Your task to perform on an android device: change the clock display to analog Image 0: 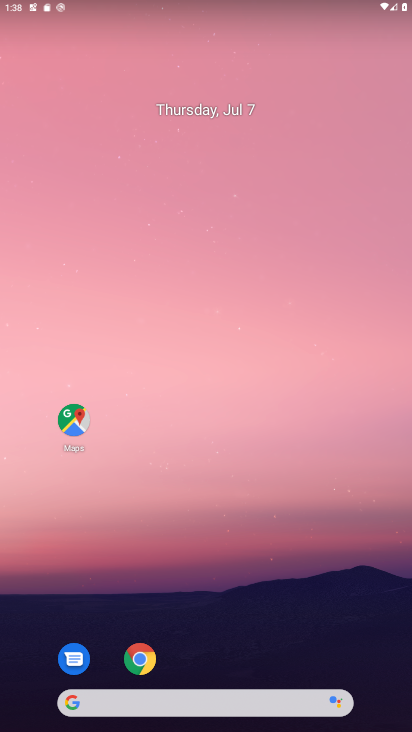
Step 0: click (198, 590)
Your task to perform on an android device: change the clock display to analog Image 1: 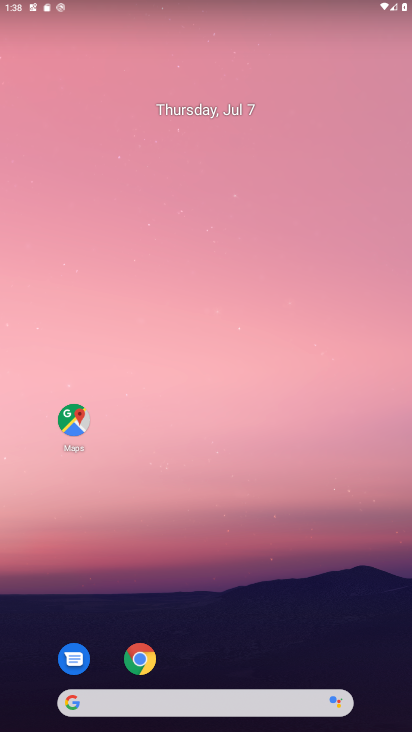
Step 1: drag from (199, 660) to (289, 63)
Your task to perform on an android device: change the clock display to analog Image 2: 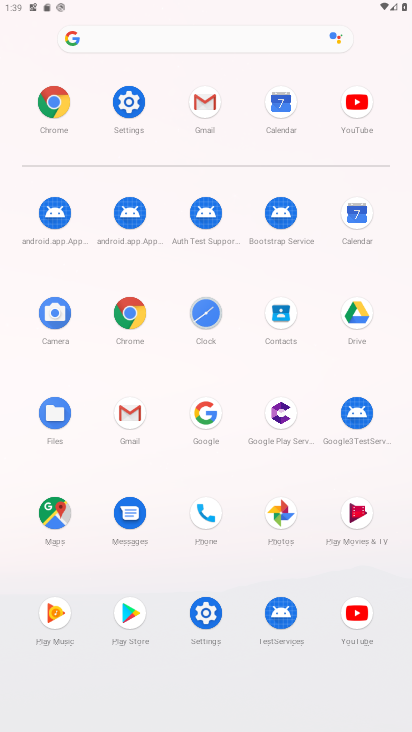
Step 2: click (213, 302)
Your task to perform on an android device: change the clock display to analog Image 3: 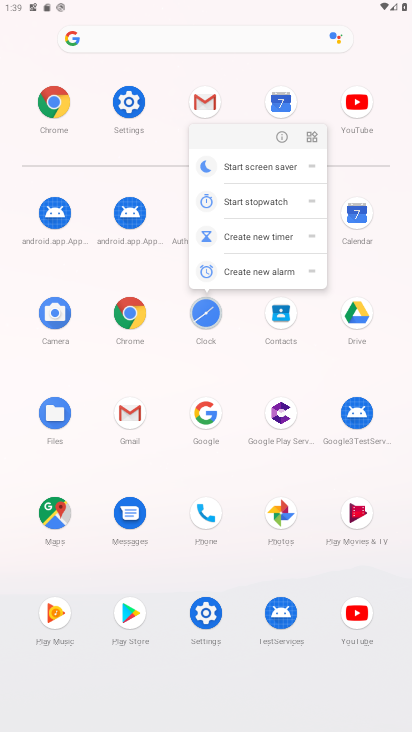
Step 3: click (278, 138)
Your task to perform on an android device: change the clock display to analog Image 4: 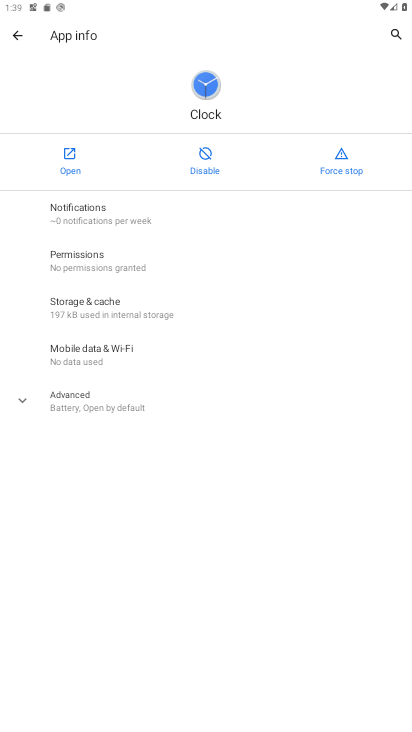
Step 4: click (66, 165)
Your task to perform on an android device: change the clock display to analog Image 5: 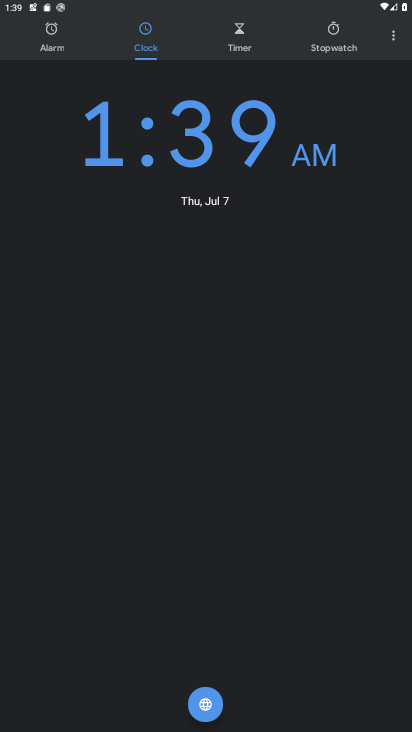
Step 5: click (395, 35)
Your task to perform on an android device: change the clock display to analog Image 6: 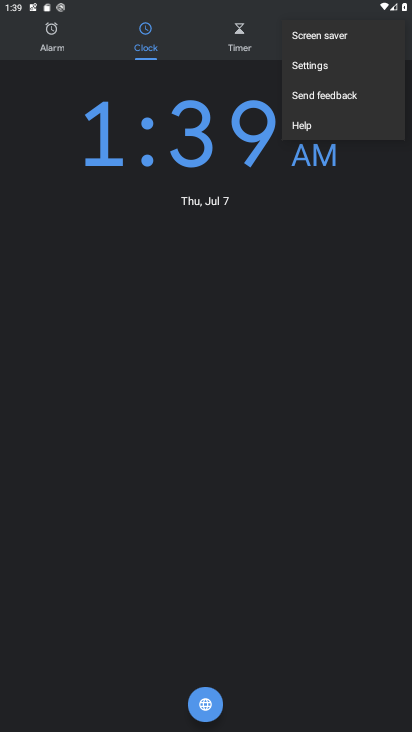
Step 6: click (313, 67)
Your task to perform on an android device: change the clock display to analog Image 7: 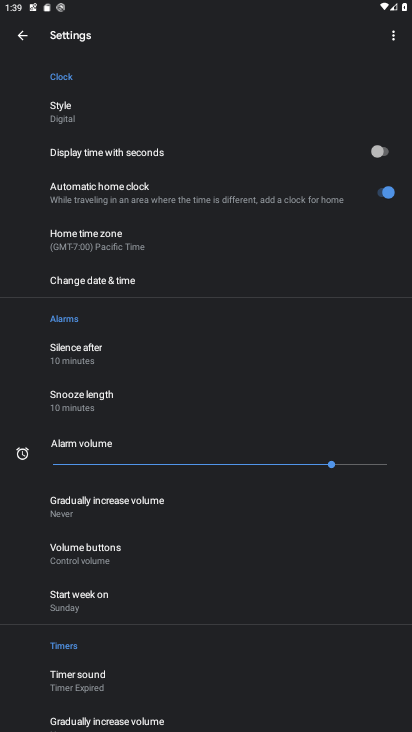
Step 7: click (61, 107)
Your task to perform on an android device: change the clock display to analog Image 8: 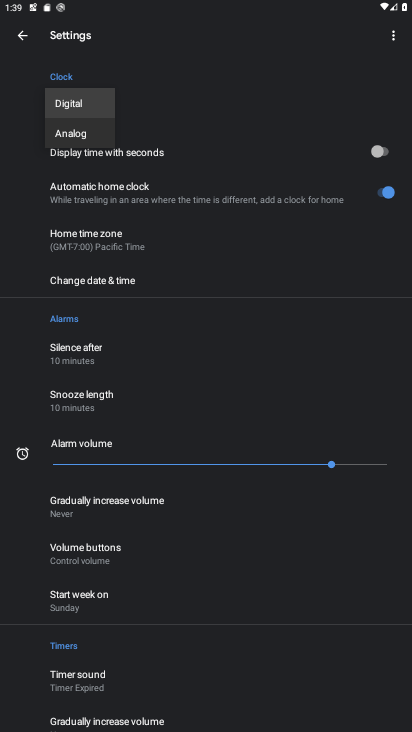
Step 8: click (98, 137)
Your task to perform on an android device: change the clock display to analog Image 9: 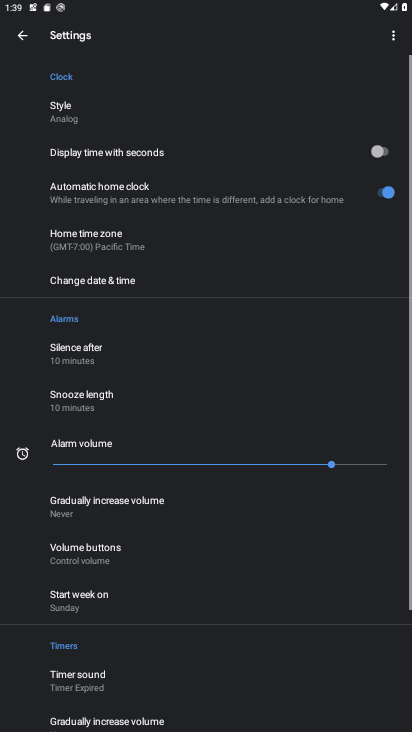
Step 9: task complete